Your task to perform on an android device: See recent photos Image 0: 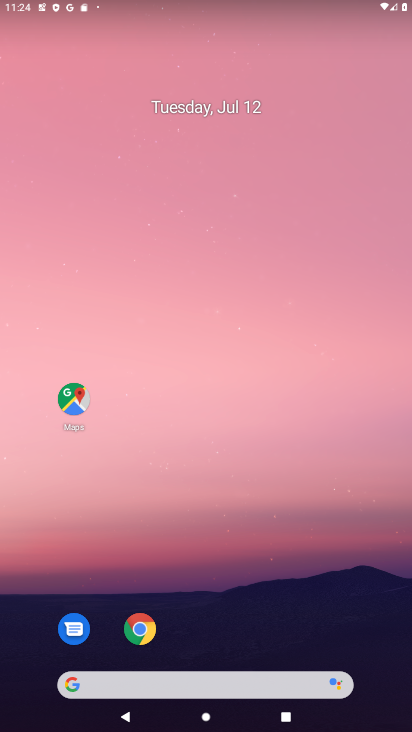
Step 0: drag from (282, 666) to (300, 135)
Your task to perform on an android device: See recent photos Image 1: 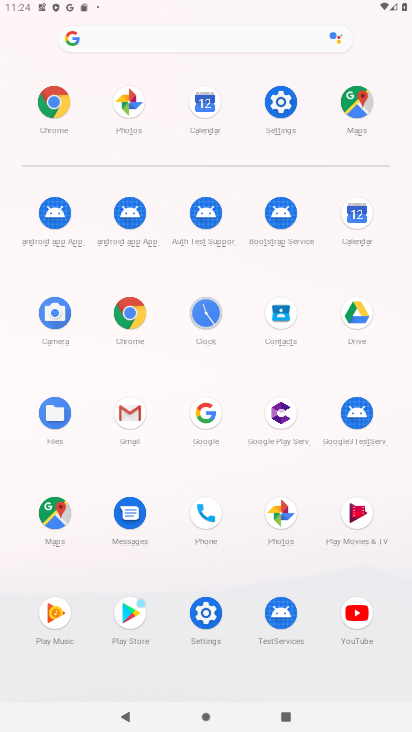
Step 1: click (283, 509)
Your task to perform on an android device: See recent photos Image 2: 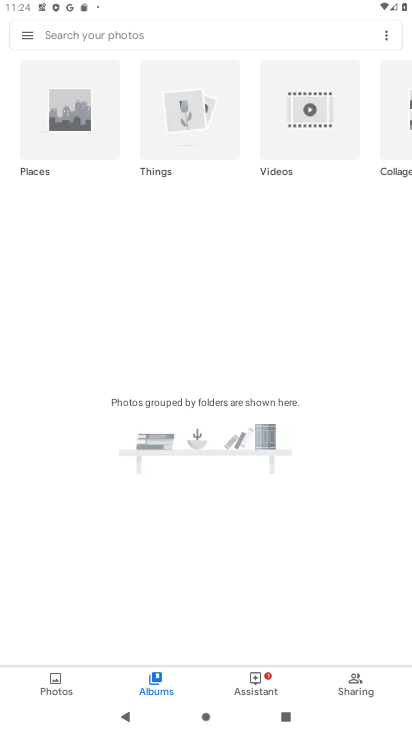
Step 2: task complete